Your task to perform on an android device: delete browsing data in the chrome app Image 0: 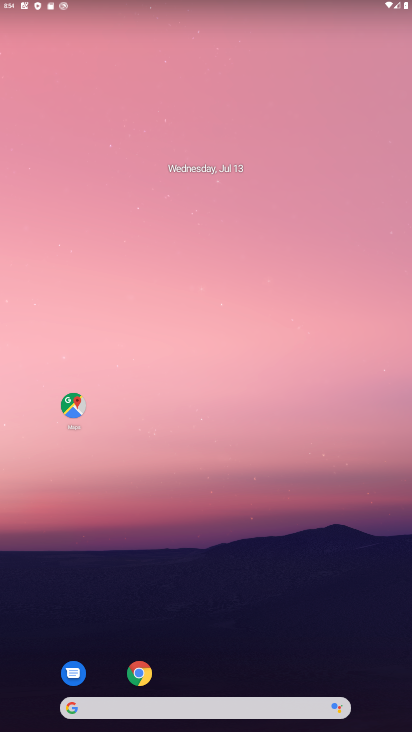
Step 0: click (135, 671)
Your task to perform on an android device: delete browsing data in the chrome app Image 1: 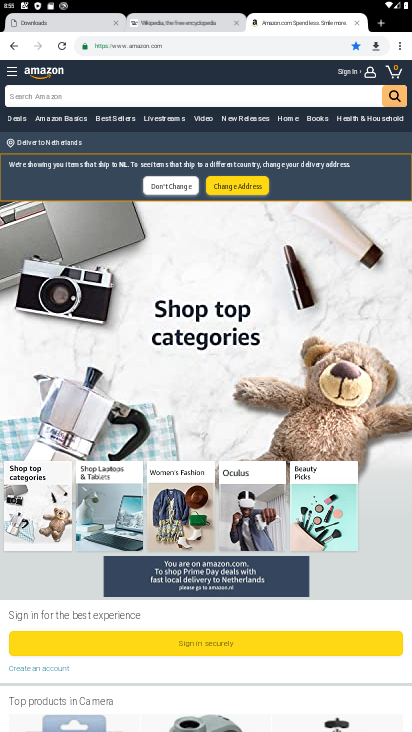
Step 1: click (398, 51)
Your task to perform on an android device: delete browsing data in the chrome app Image 2: 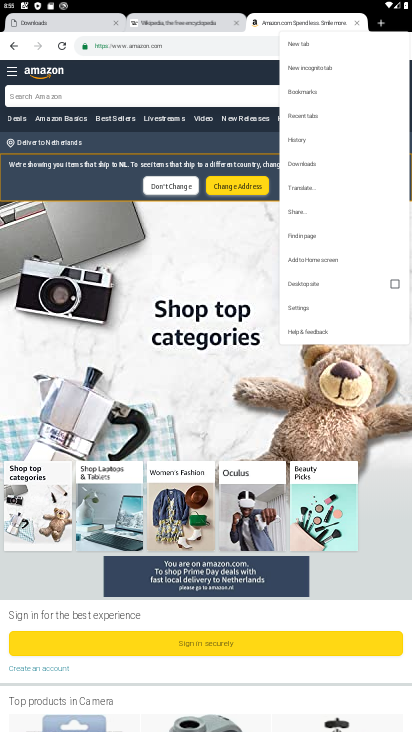
Step 2: click (318, 143)
Your task to perform on an android device: delete browsing data in the chrome app Image 3: 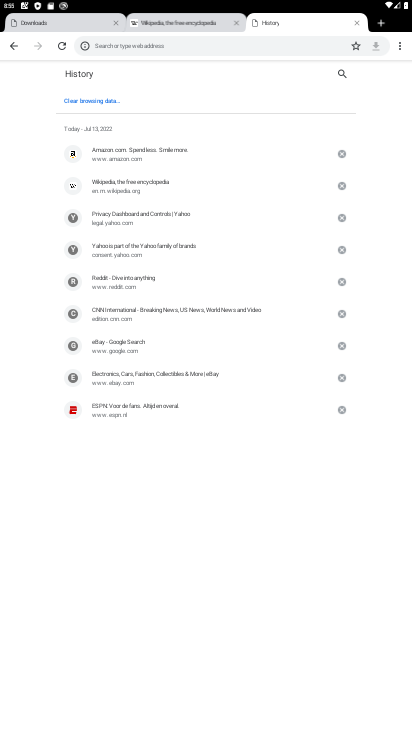
Step 3: click (75, 106)
Your task to perform on an android device: delete browsing data in the chrome app Image 4: 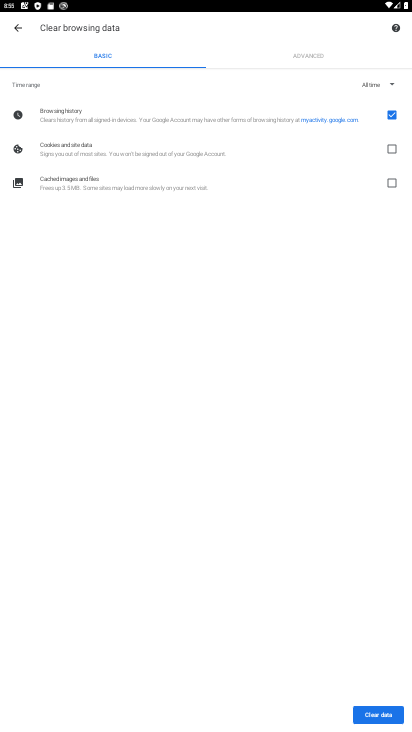
Step 4: click (373, 714)
Your task to perform on an android device: delete browsing data in the chrome app Image 5: 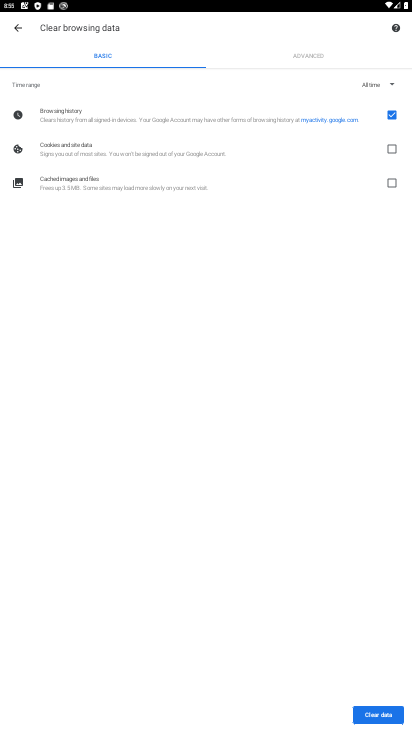
Step 5: click (373, 714)
Your task to perform on an android device: delete browsing data in the chrome app Image 6: 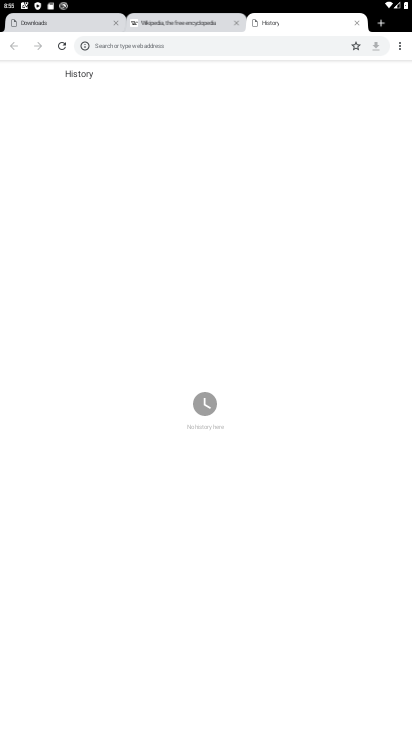
Step 6: click (373, 714)
Your task to perform on an android device: delete browsing data in the chrome app Image 7: 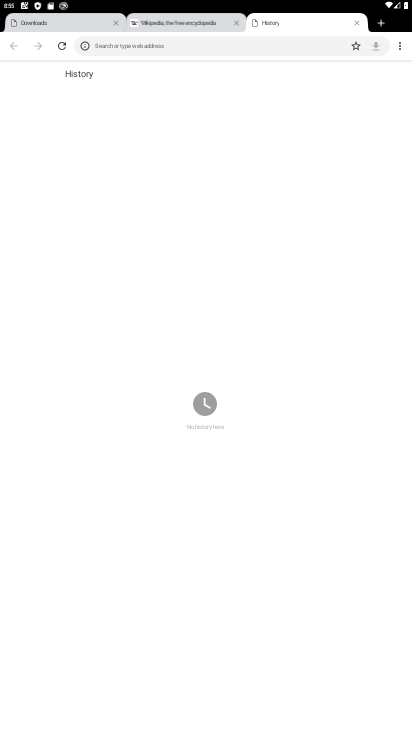
Step 7: task complete